Your task to perform on an android device: turn off javascript in the chrome app Image 0: 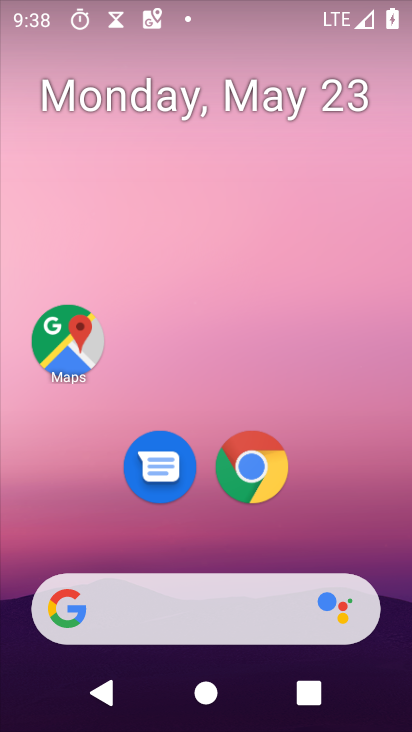
Step 0: click (264, 468)
Your task to perform on an android device: turn off javascript in the chrome app Image 1: 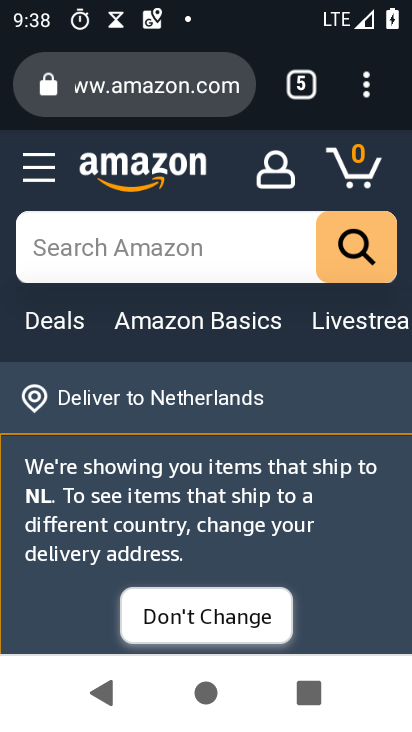
Step 1: click (371, 85)
Your task to perform on an android device: turn off javascript in the chrome app Image 2: 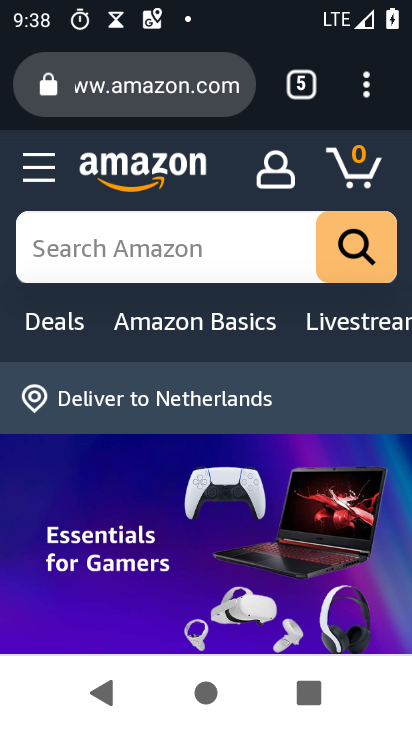
Step 2: click (363, 97)
Your task to perform on an android device: turn off javascript in the chrome app Image 3: 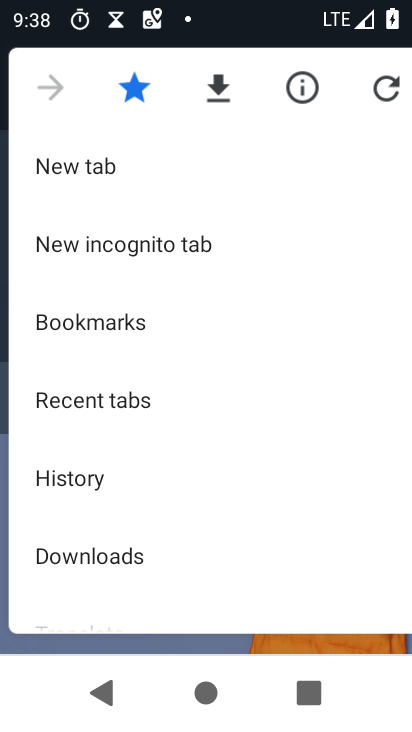
Step 3: drag from (198, 516) to (151, 159)
Your task to perform on an android device: turn off javascript in the chrome app Image 4: 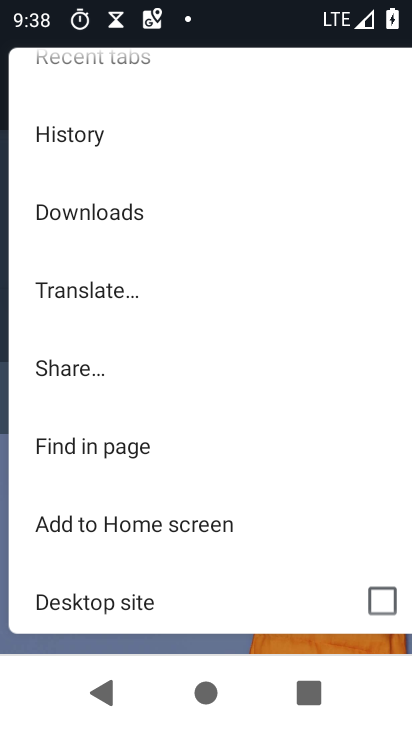
Step 4: drag from (180, 558) to (143, 207)
Your task to perform on an android device: turn off javascript in the chrome app Image 5: 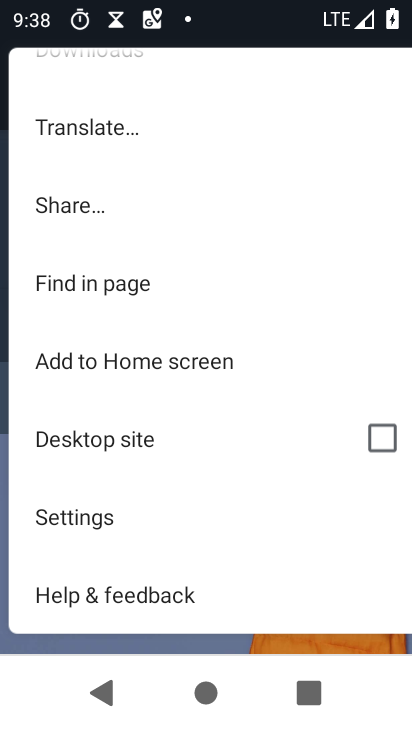
Step 5: click (146, 517)
Your task to perform on an android device: turn off javascript in the chrome app Image 6: 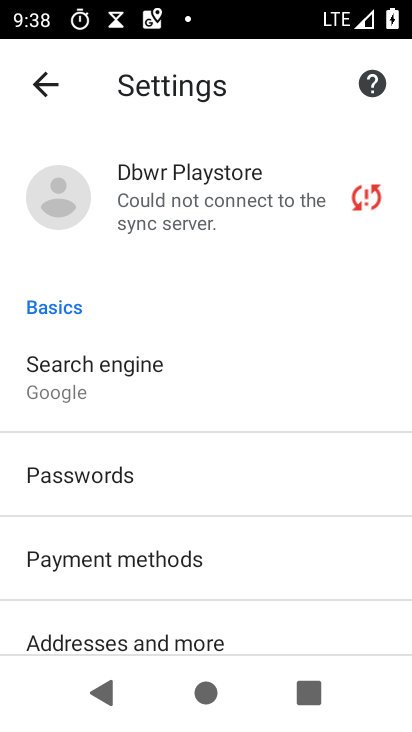
Step 6: drag from (234, 611) to (162, 80)
Your task to perform on an android device: turn off javascript in the chrome app Image 7: 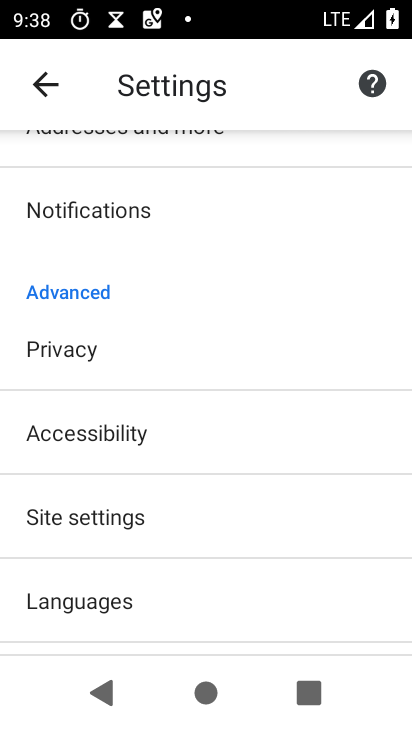
Step 7: click (181, 530)
Your task to perform on an android device: turn off javascript in the chrome app Image 8: 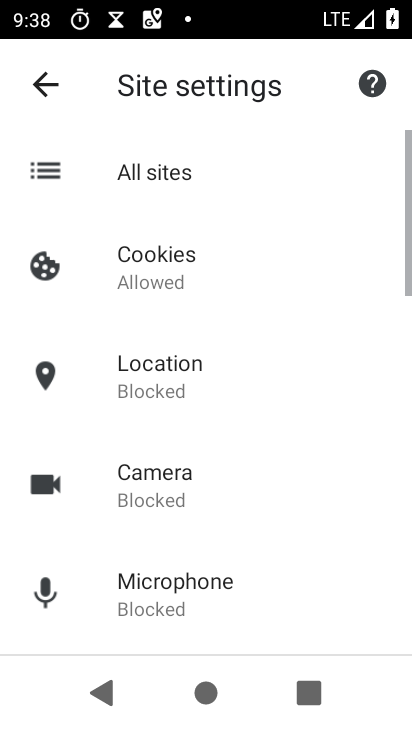
Step 8: drag from (252, 551) to (217, 157)
Your task to perform on an android device: turn off javascript in the chrome app Image 9: 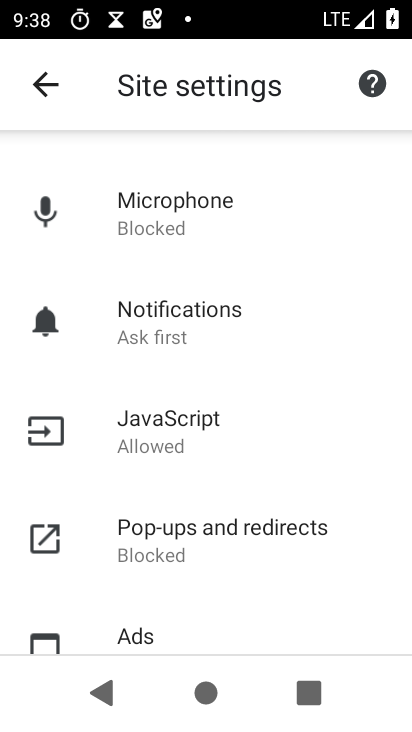
Step 9: click (186, 447)
Your task to perform on an android device: turn off javascript in the chrome app Image 10: 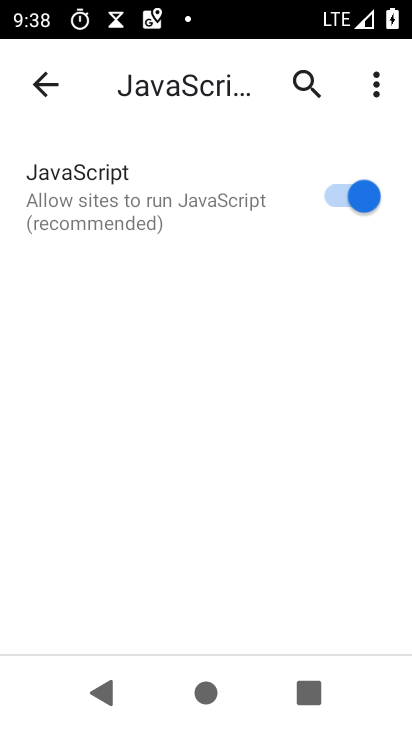
Step 10: click (357, 180)
Your task to perform on an android device: turn off javascript in the chrome app Image 11: 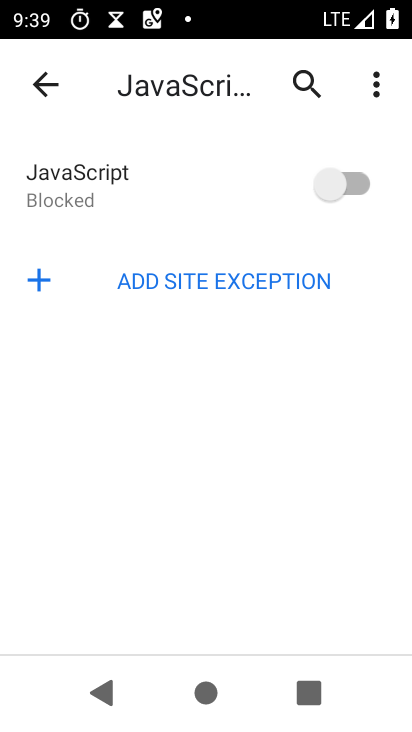
Step 11: task complete